Your task to perform on an android device: make emails show in primary in the gmail app Image 0: 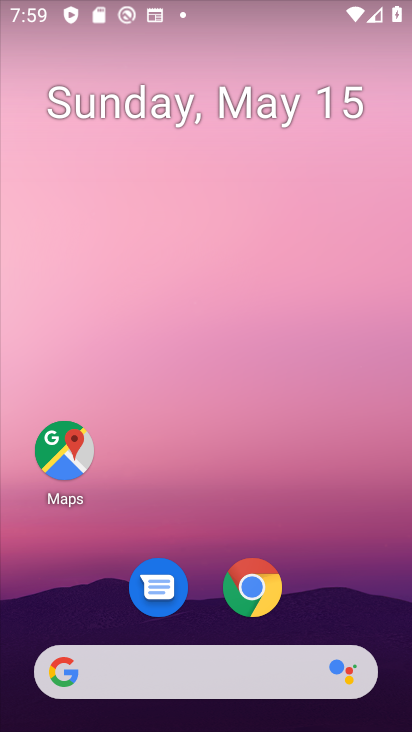
Step 0: drag from (215, 615) to (268, 283)
Your task to perform on an android device: make emails show in primary in the gmail app Image 1: 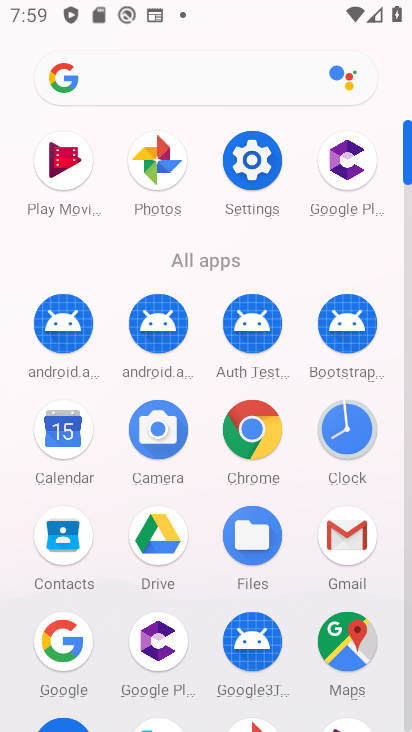
Step 1: click (352, 537)
Your task to perform on an android device: make emails show in primary in the gmail app Image 2: 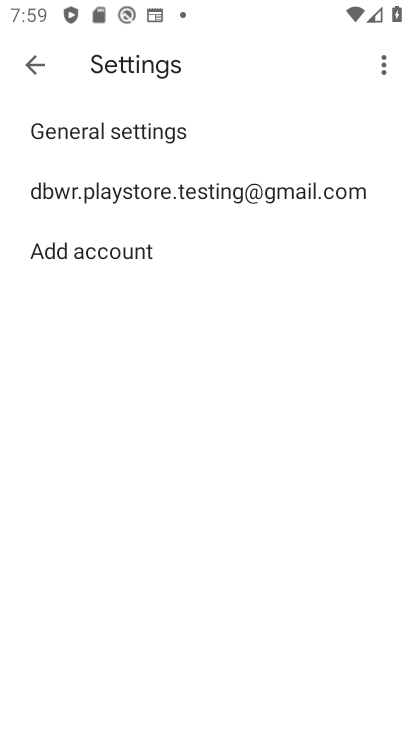
Step 2: click (203, 198)
Your task to perform on an android device: make emails show in primary in the gmail app Image 3: 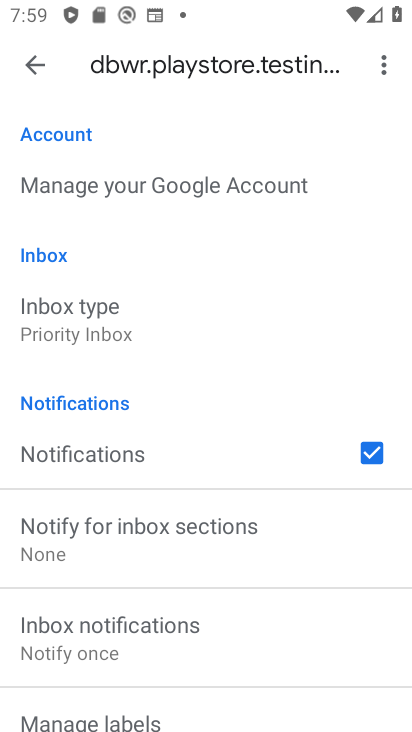
Step 3: click (33, 77)
Your task to perform on an android device: make emails show in primary in the gmail app Image 4: 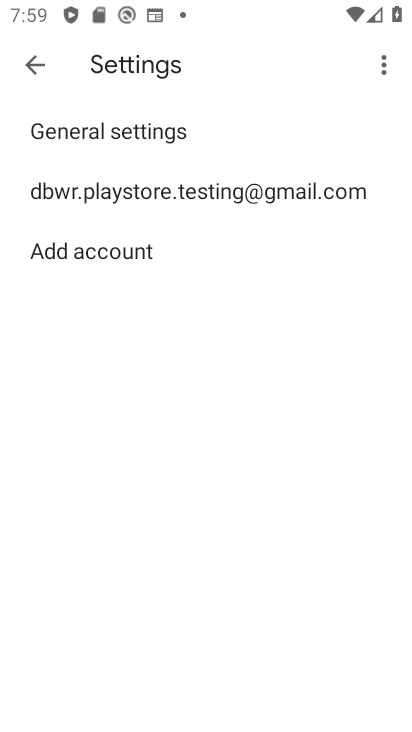
Step 4: click (51, 71)
Your task to perform on an android device: make emails show in primary in the gmail app Image 5: 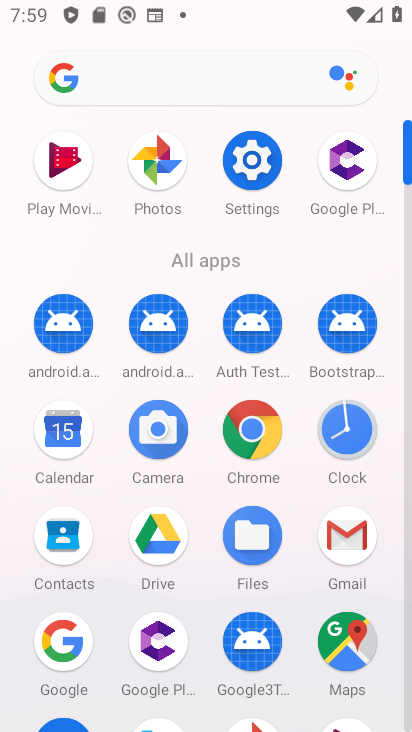
Step 5: click (351, 531)
Your task to perform on an android device: make emails show in primary in the gmail app Image 6: 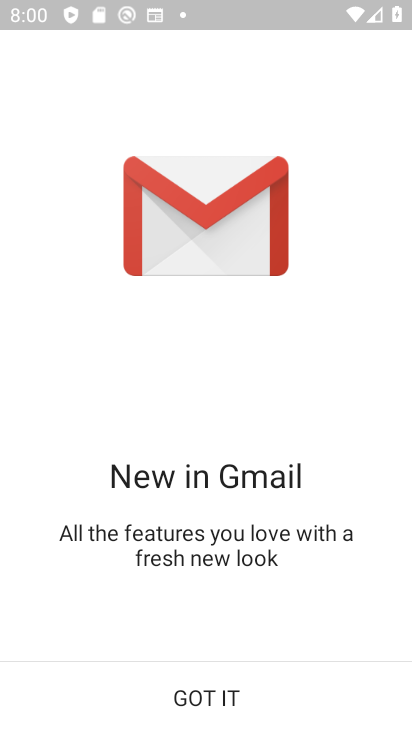
Step 6: click (182, 698)
Your task to perform on an android device: make emails show in primary in the gmail app Image 7: 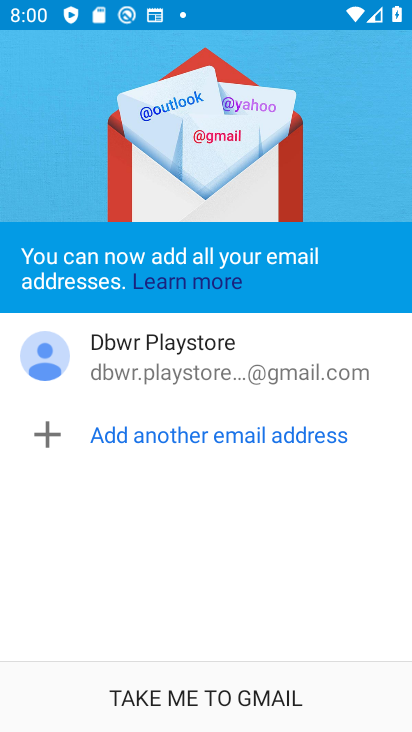
Step 7: click (216, 705)
Your task to perform on an android device: make emails show in primary in the gmail app Image 8: 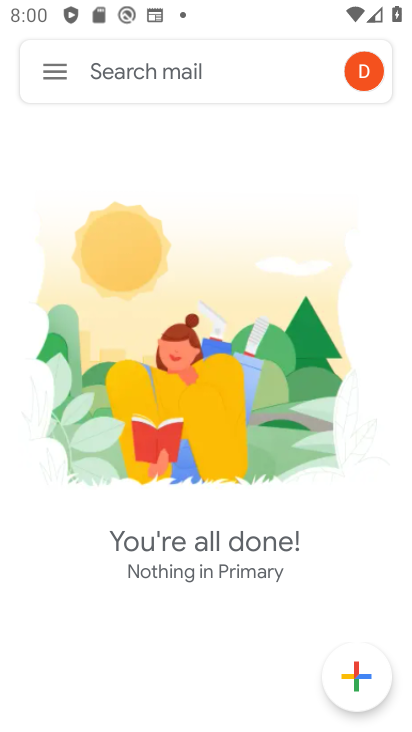
Step 8: click (67, 72)
Your task to perform on an android device: make emails show in primary in the gmail app Image 9: 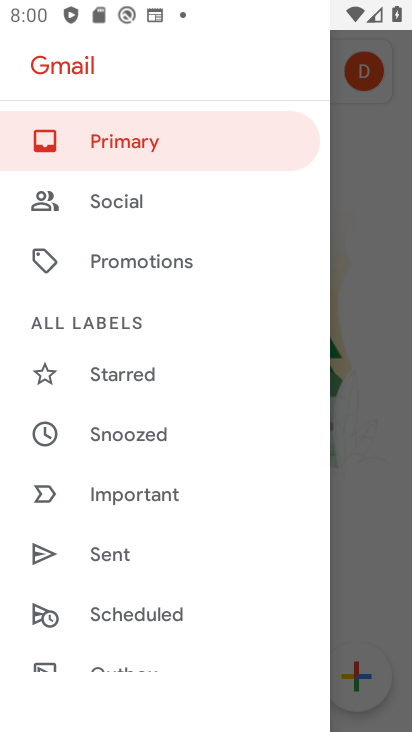
Step 9: drag from (111, 601) to (175, 288)
Your task to perform on an android device: make emails show in primary in the gmail app Image 10: 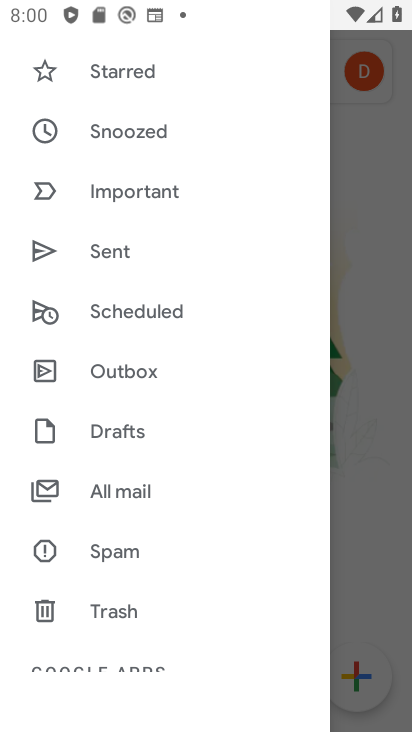
Step 10: drag from (127, 658) to (194, 358)
Your task to perform on an android device: make emails show in primary in the gmail app Image 11: 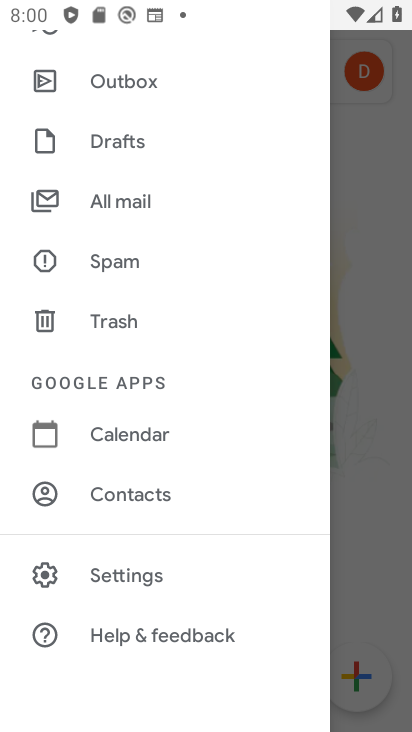
Step 11: click (154, 579)
Your task to perform on an android device: make emails show in primary in the gmail app Image 12: 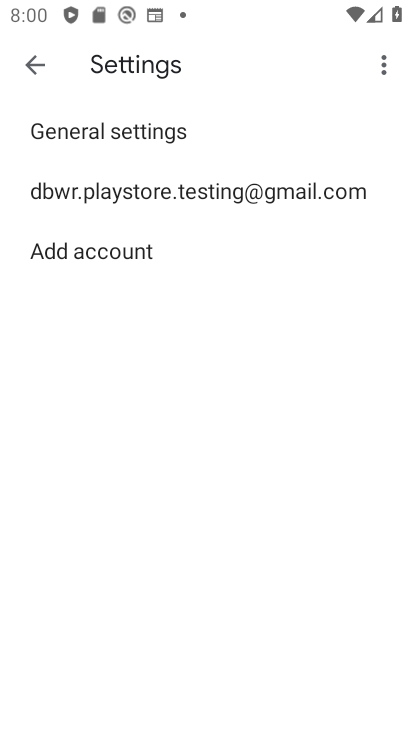
Step 12: click (139, 185)
Your task to perform on an android device: make emails show in primary in the gmail app Image 13: 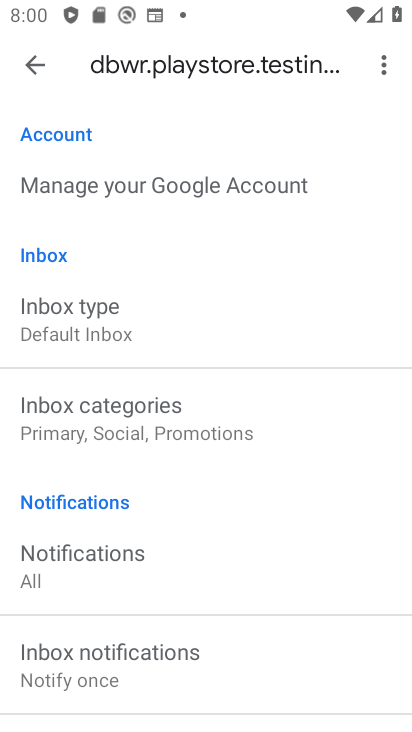
Step 13: click (94, 321)
Your task to perform on an android device: make emails show in primary in the gmail app Image 14: 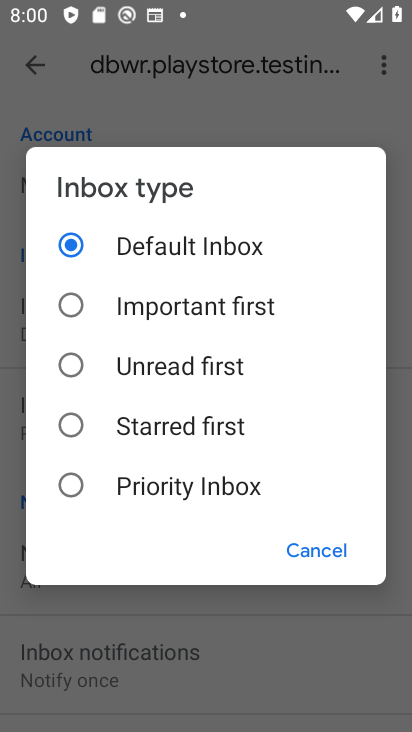
Step 14: click (211, 596)
Your task to perform on an android device: make emails show in primary in the gmail app Image 15: 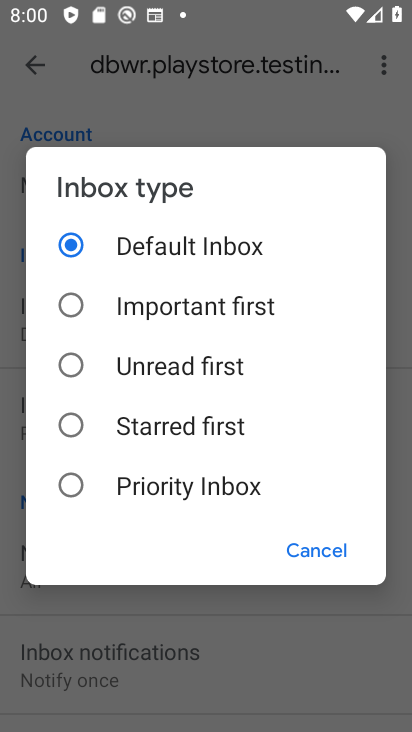
Step 15: click (43, 55)
Your task to perform on an android device: make emails show in primary in the gmail app Image 16: 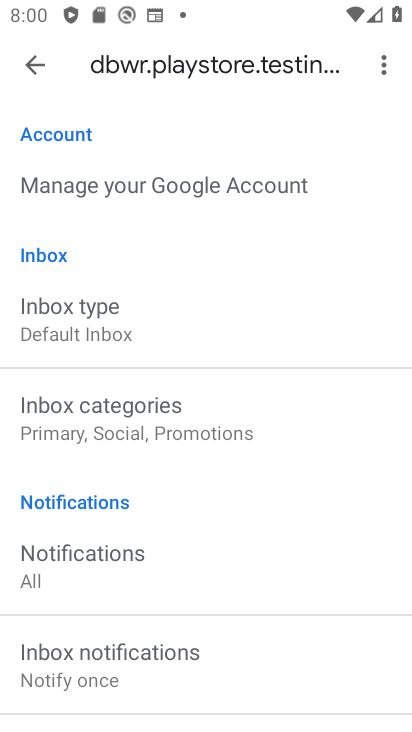
Step 16: click (37, 66)
Your task to perform on an android device: make emails show in primary in the gmail app Image 17: 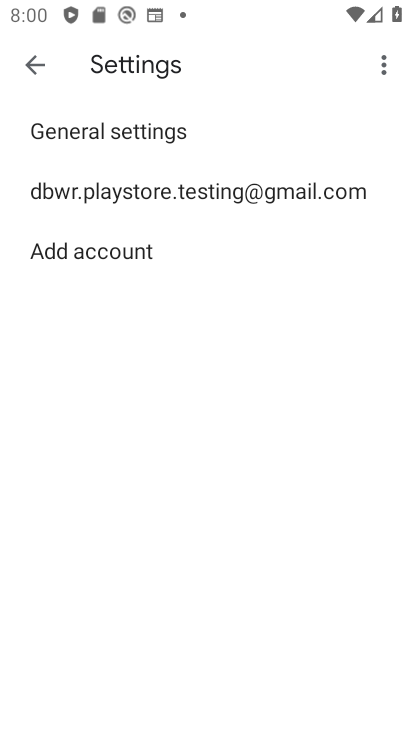
Step 17: click (36, 52)
Your task to perform on an android device: make emails show in primary in the gmail app Image 18: 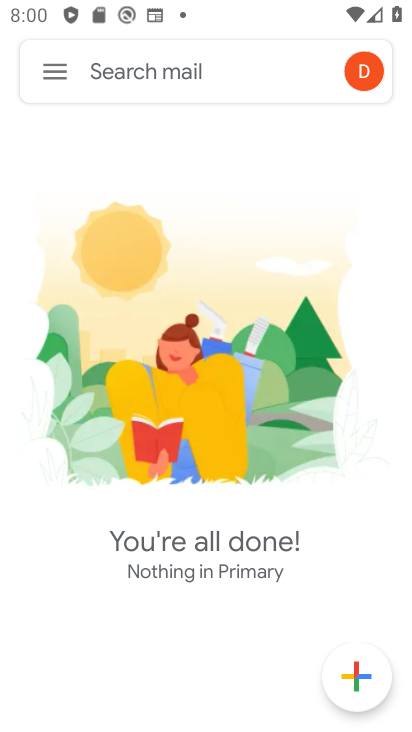
Step 18: click (56, 72)
Your task to perform on an android device: make emails show in primary in the gmail app Image 19: 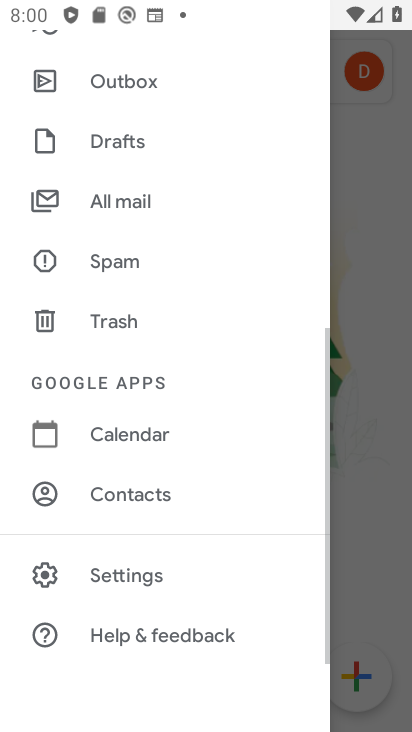
Step 19: drag from (129, 134) to (128, 618)
Your task to perform on an android device: make emails show in primary in the gmail app Image 20: 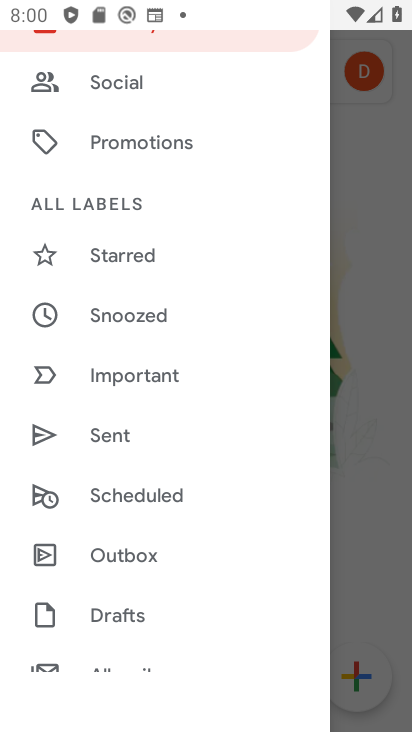
Step 20: drag from (117, 95) to (150, 529)
Your task to perform on an android device: make emails show in primary in the gmail app Image 21: 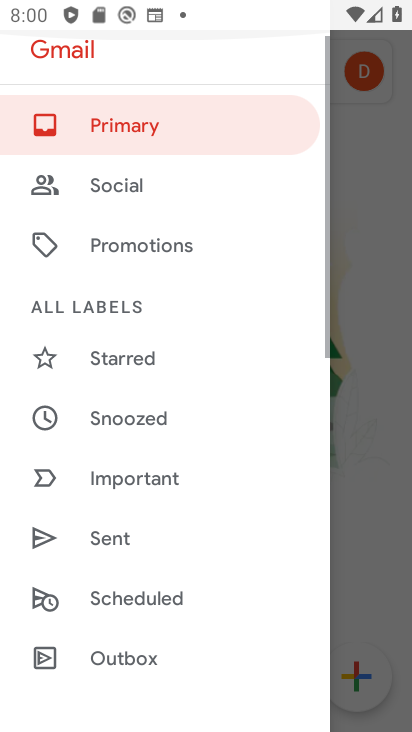
Step 21: click (155, 147)
Your task to perform on an android device: make emails show in primary in the gmail app Image 22: 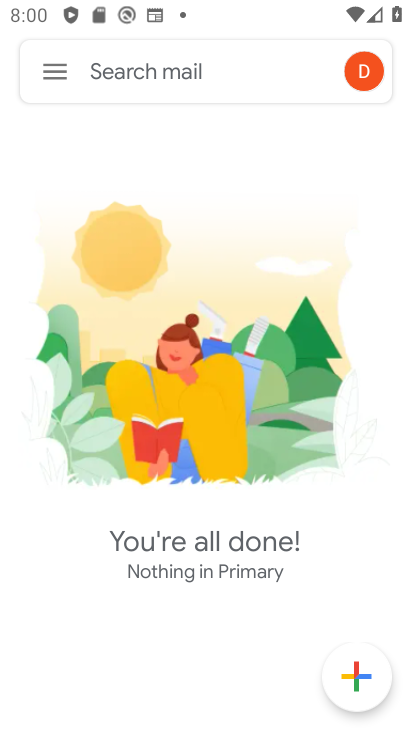
Step 22: task complete